Your task to perform on an android device: Search for "razer huntsman" on ebay.com, select the first entry, and add it to the cart. Image 0: 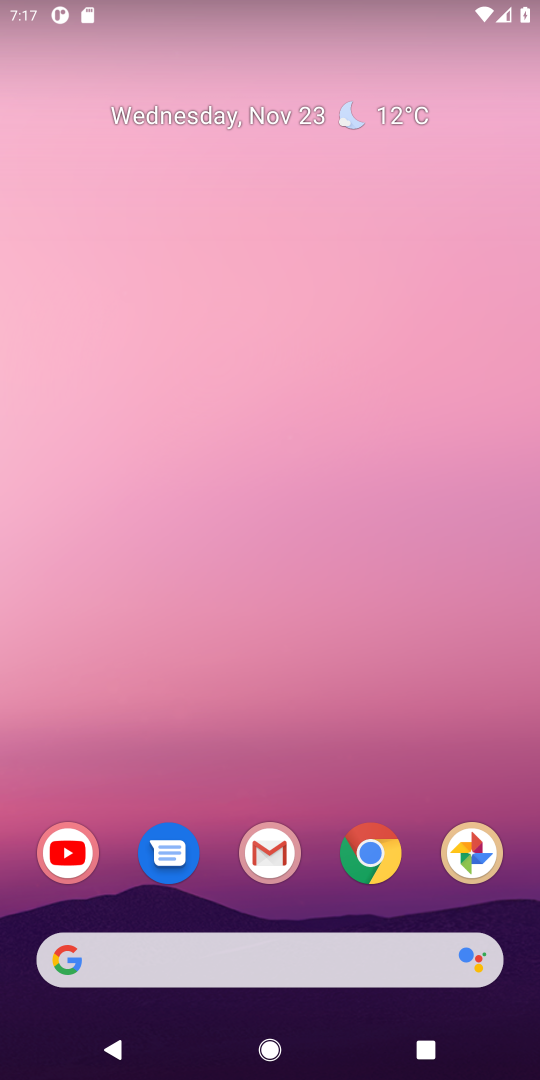
Step 0: click (370, 861)
Your task to perform on an android device: Search for "razer huntsman" on ebay.com, select the first entry, and add it to the cart. Image 1: 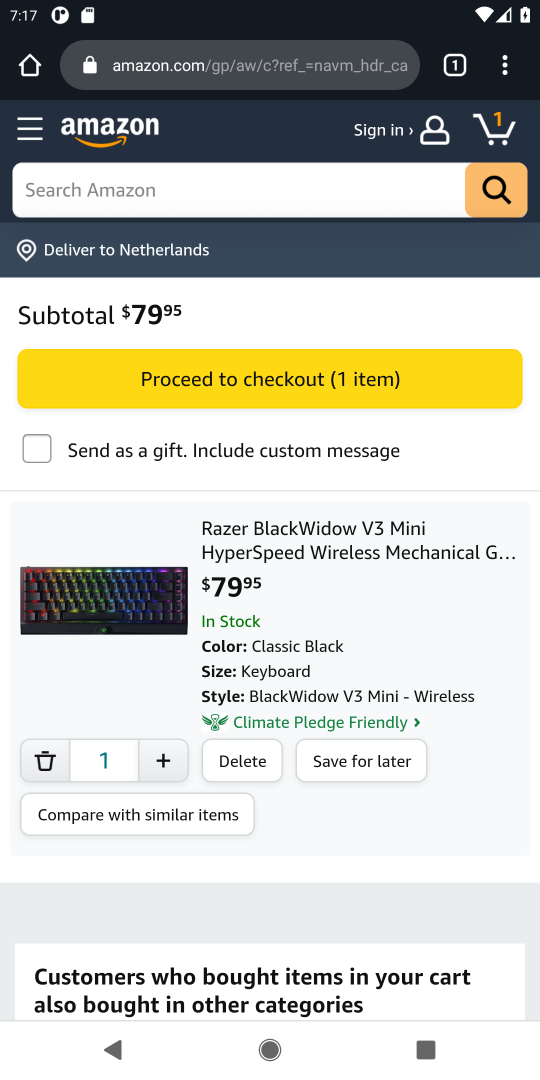
Step 1: click (209, 72)
Your task to perform on an android device: Search for "razer huntsman" on ebay.com, select the first entry, and add it to the cart. Image 2: 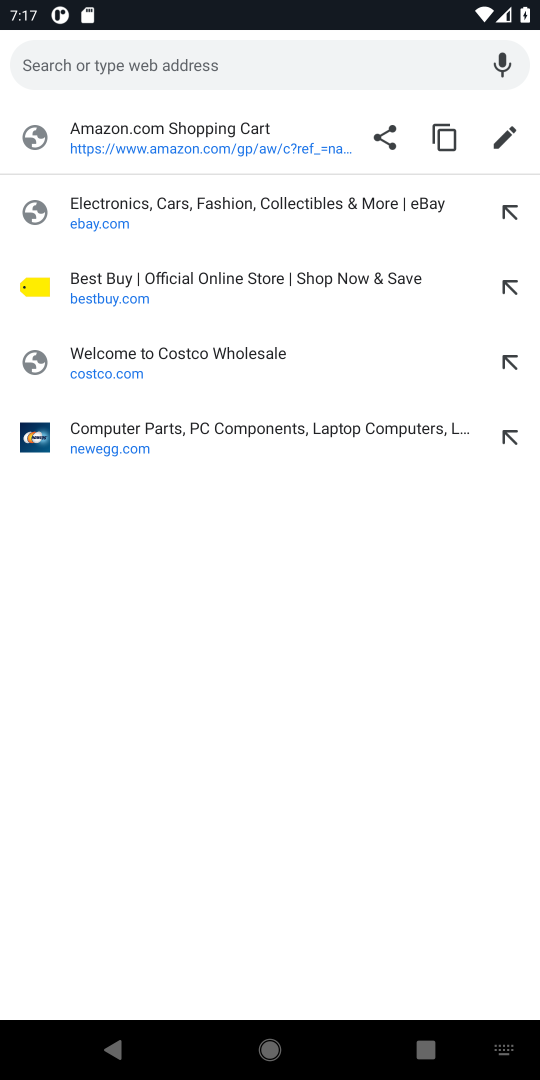
Step 2: click (106, 224)
Your task to perform on an android device: Search for "razer huntsman" on ebay.com, select the first entry, and add it to the cart. Image 3: 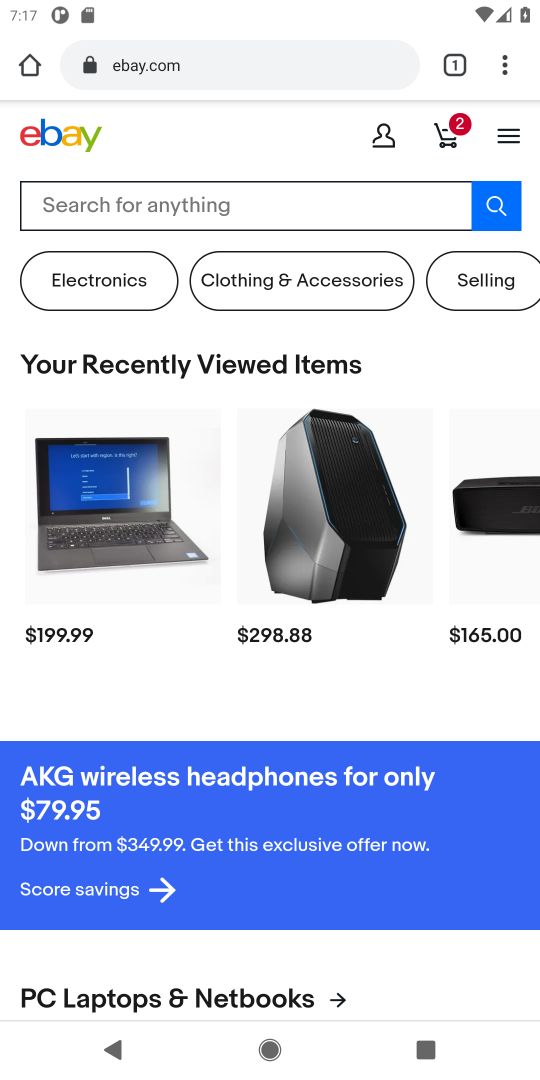
Step 3: click (195, 206)
Your task to perform on an android device: Search for "razer huntsman" on ebay.com, select the first entry, and add it to the cart. Image 4: 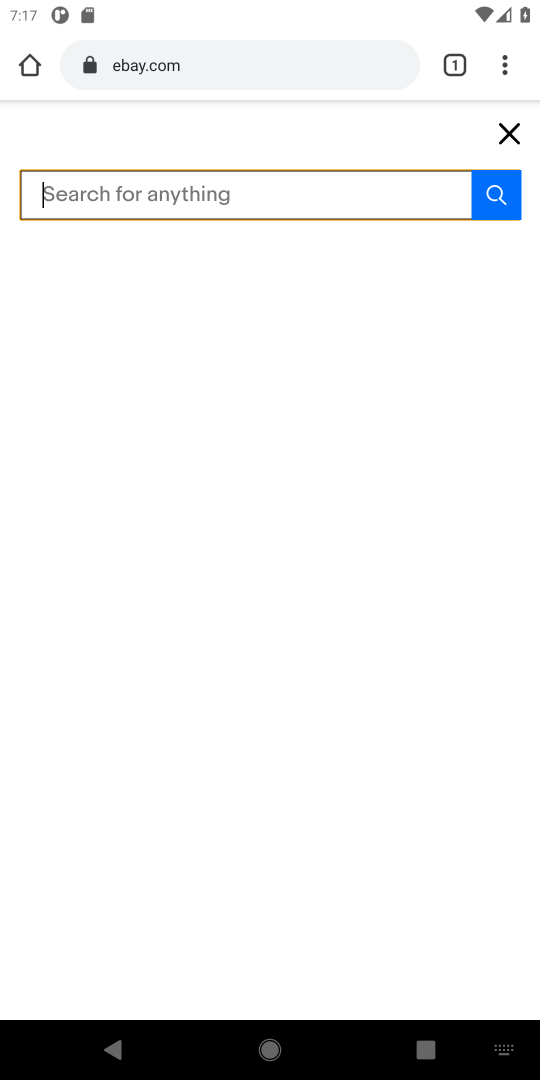
Step 4: type "razer huntsman"
Your task to perform on an android device: Search for "razer huntsman" on ebay.com, select the first entry, and add it to the cart. Image 5: 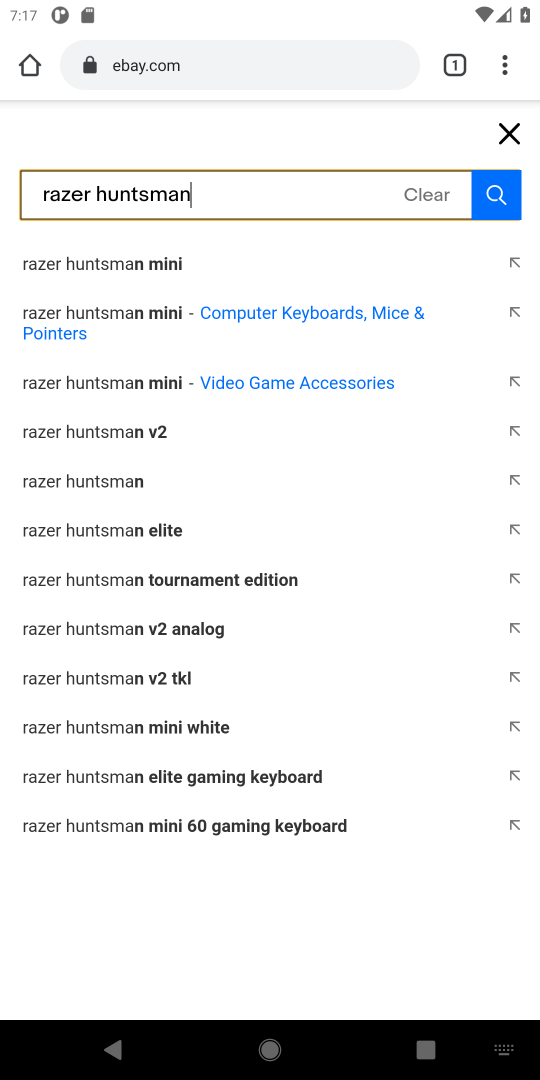
Step 5: click (85, 486)
Your task to perform on an android device: Search for "razer huntsman" on ebay.com, select the first entry, and add it to the cart. Image 6: 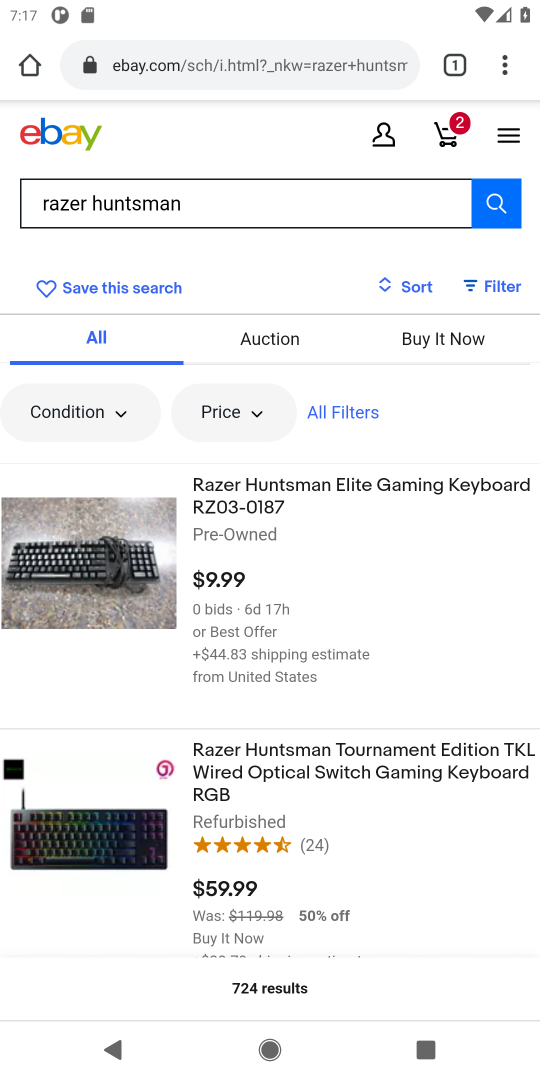
Step 6: click (94, 586)
Your task to perform on an android device: Search for "razer huntsman" on ebay.com, select the first entry, and add it to the cart. Image 7: 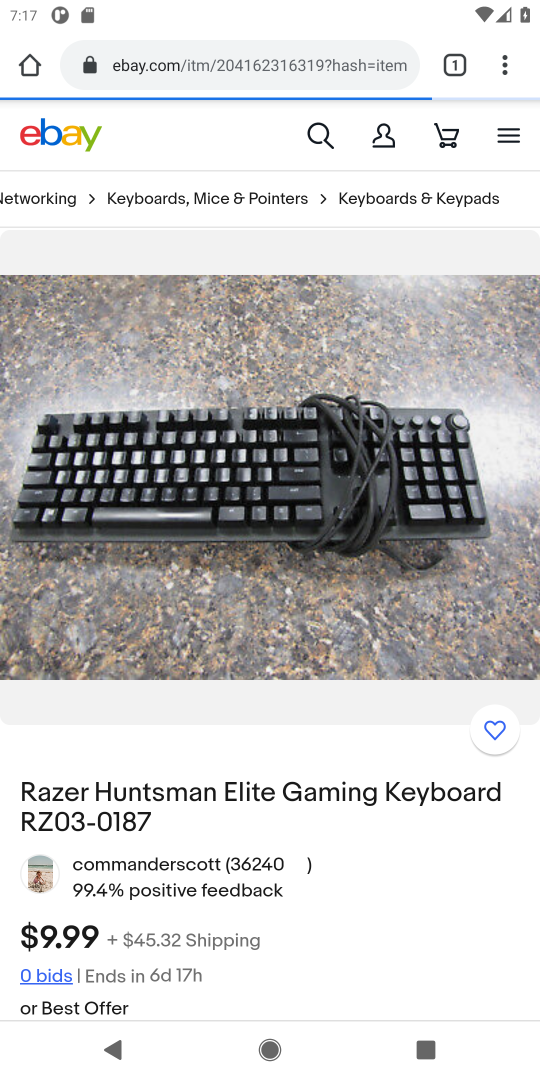
Step 7: task complete